Your task to perform on an android device: Show me productivity apps on the Play Store Image 0: 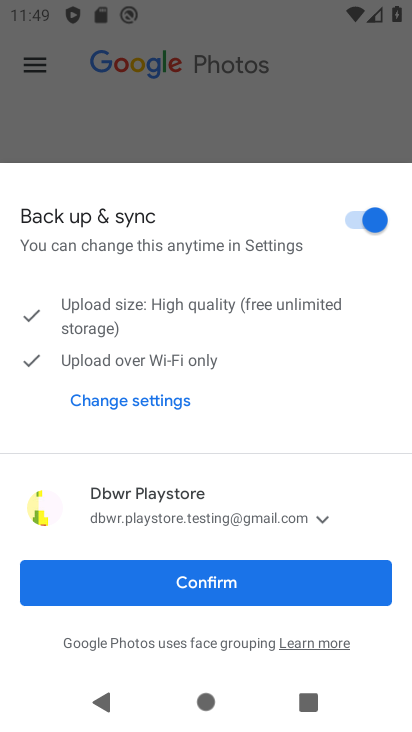
Step 0: press home button
Your task to perform on an android device: Show me productivity apps on the Play Store Image 1: 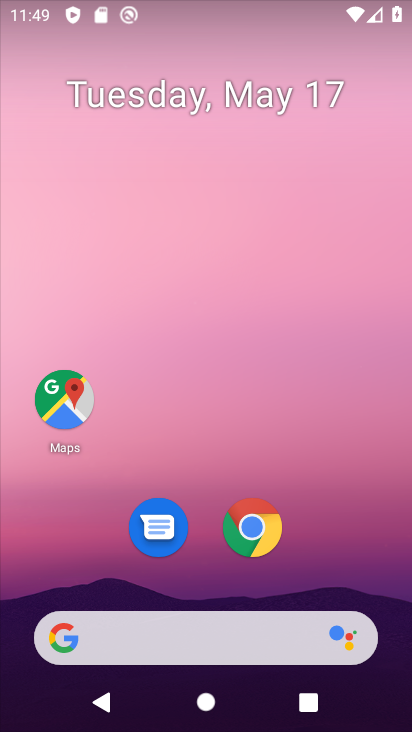
Step 1: drag from (181, 574) to (228, 0)
Your task to perform on an android device: Show me productivity apps on the Play Store Image 2: 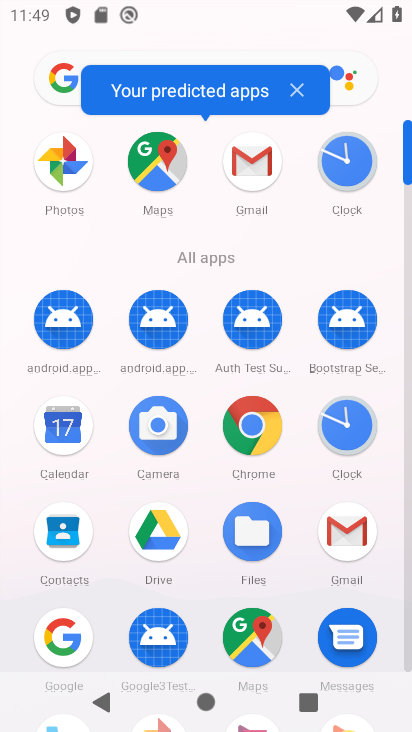
Step 2: drag from (211, 555) to (258, 152)
Your task to perform on an android device: Show me productivity apps on the Play Store Image 3: 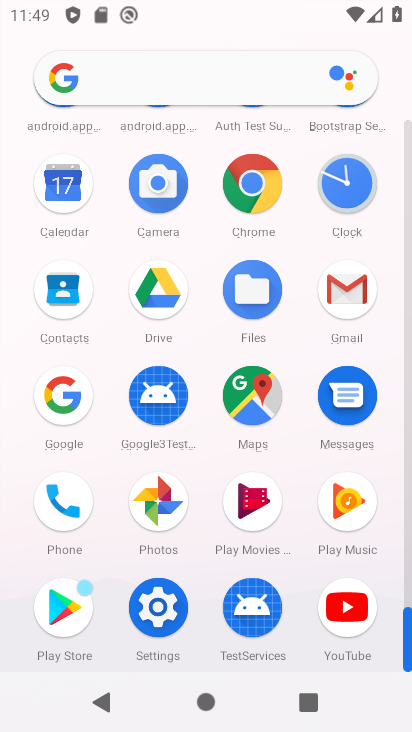
Step 3: click (67, 610)
Your task to perform on an android device: Show me productivity apps on the Play Store Image 4: 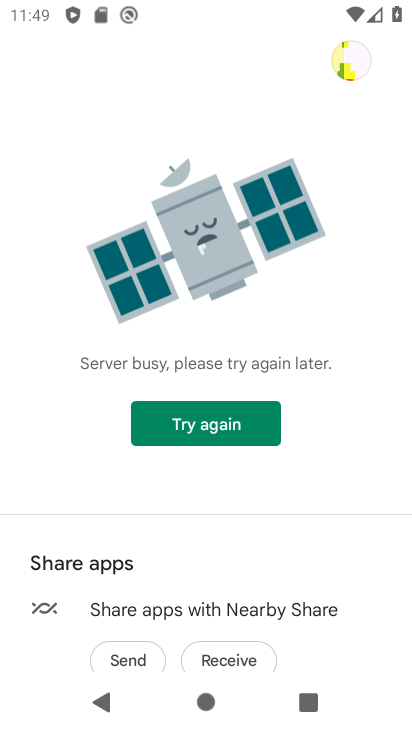
Step 4: click (208, 433)
Your task to perform on an android device: Show me productivity apps on the Play Store Image 5: 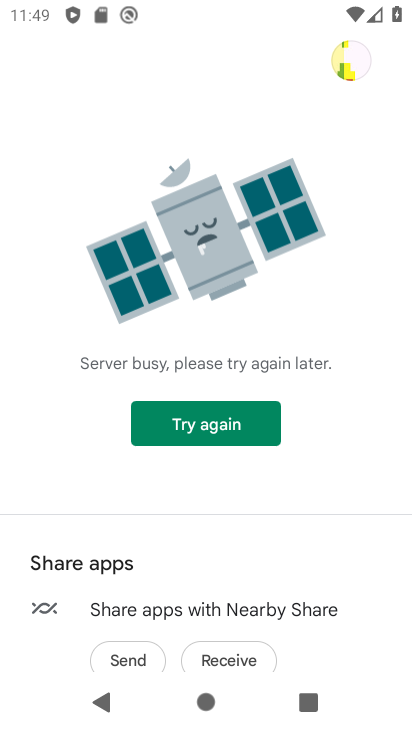
Step 5: click (227, 418)
Your task to perform on an android device: Show me productivity apps on the Play Store Image 6: 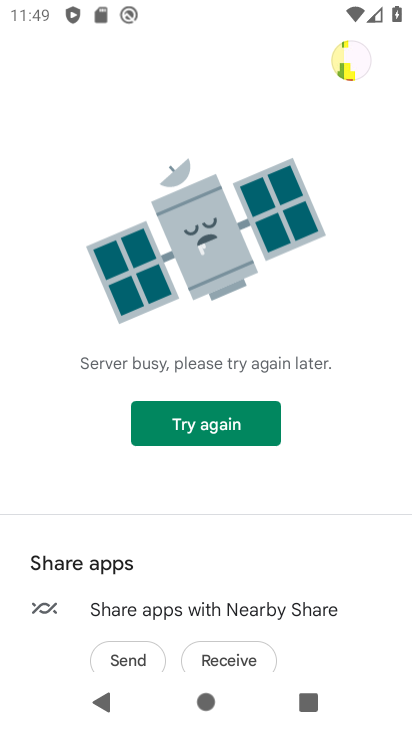
Step 6: click (227, 418)
Your task to perform on an android device: Show me productivity apps on the Play Store Image 7: 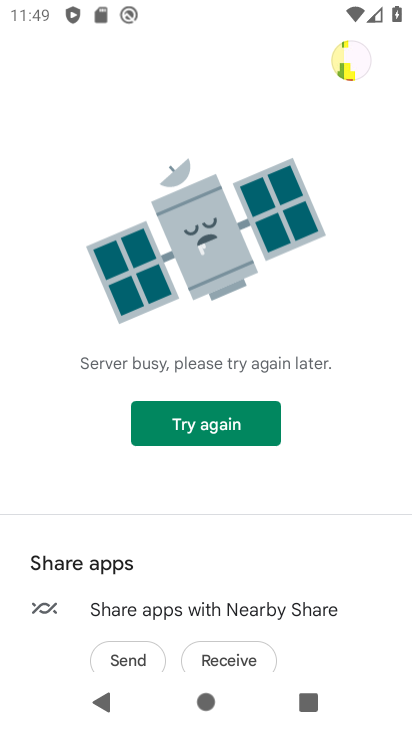
Step 7: task complete